Your task to perform on an android device: Open ESPN.com Image 0: 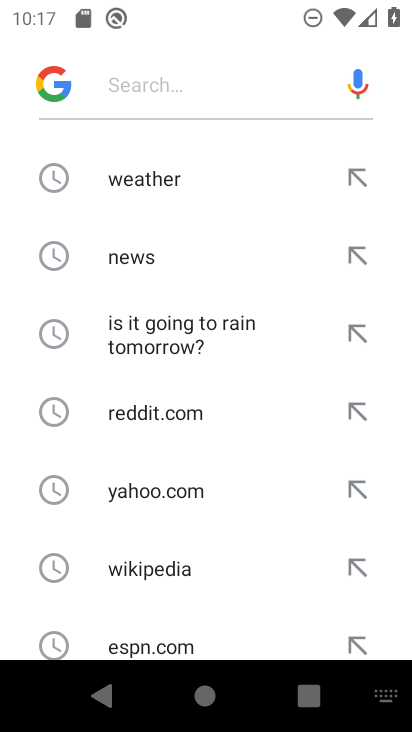
Step 0: click (167, 637)
Your task to perform on an android device: Open ESPN.com Image 1: 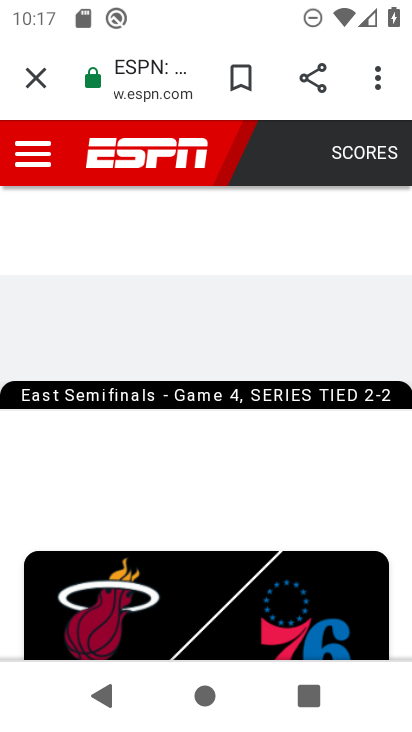
Step 1: task complete